Your task to perform on an android device: change the clock display to show seconds Image 0: 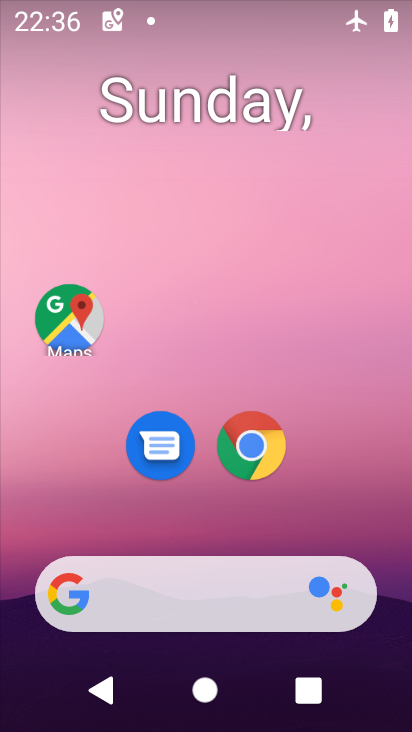
Step 0: drag from (332, 509) to (366, 111)
Your task to perform on an android device: change the clock display to show seconds Image 1: 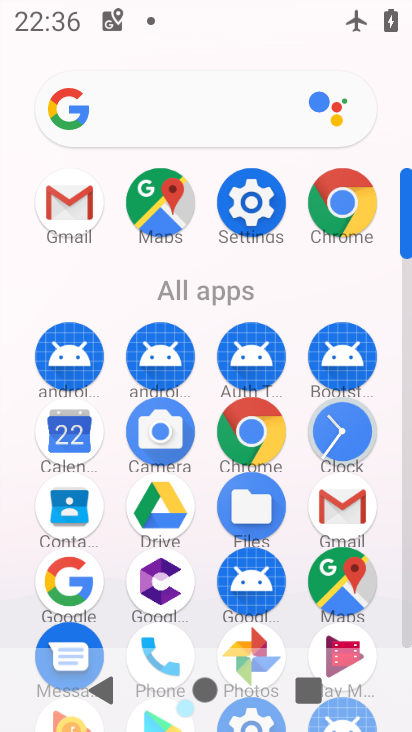
Step 1: click (360, 428)
Your task to perform on an android device: change the clock display to show seconds Image 2: 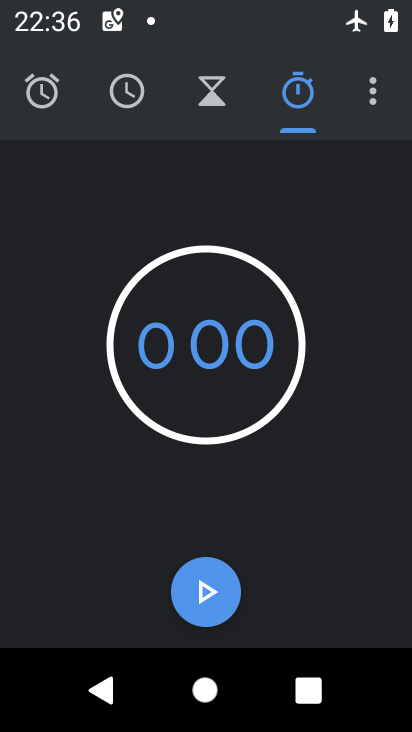
Step 2: click (380, 99)
Your task to perform on an android device: change the clock display to show seconds Image 3: 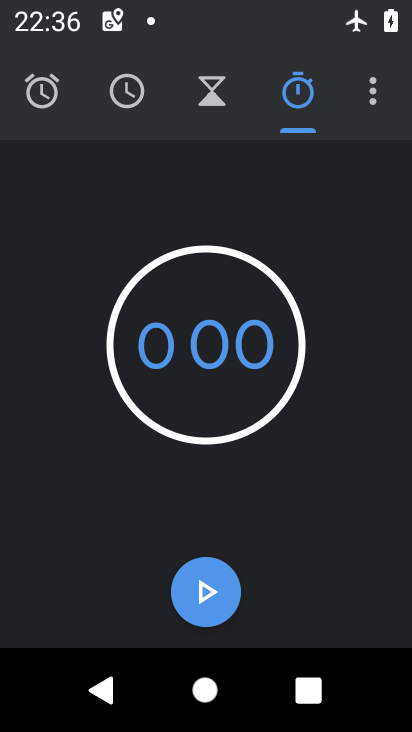
Step 3: click (380, 99)
Your task to perform on an android device: change the clock display to show seconds Image 4: 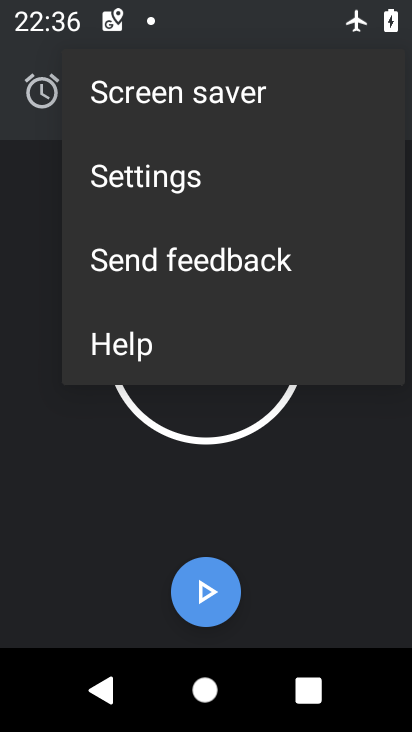
Step 4: click (190, 183)
Your task to perform on an android device: change the clock display to show seconds Image 5: 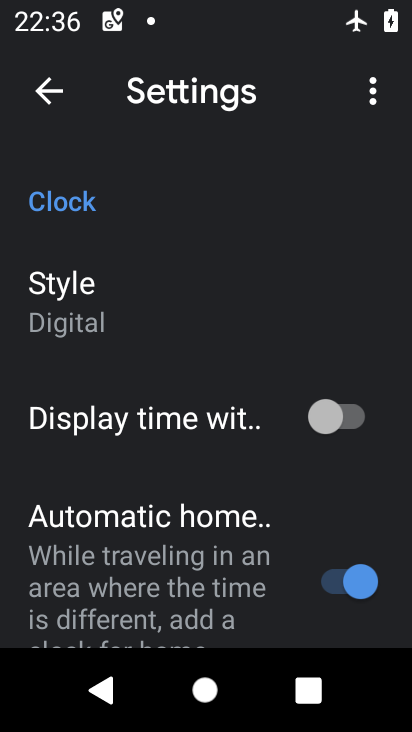
Step 5: drag from (205, 483) to (198, 404)
Your task to perform on an android device: change the clock display to show seconds Image 6: 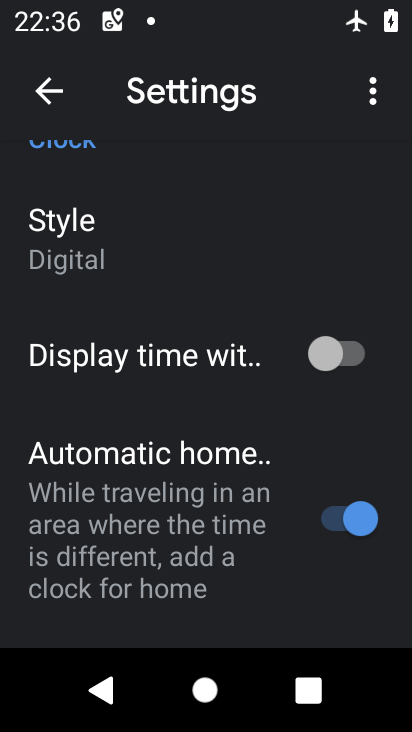
Step 6: click (340, 346)
Your task to perform on an android device: change the clock display to show seconds Image 7: 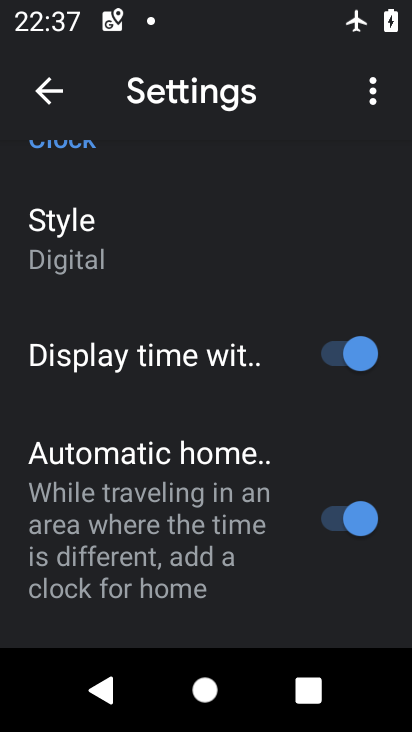
Step 7: task complete